Your task to perform on an android device: toggle pop-ups in chrome Image 0: 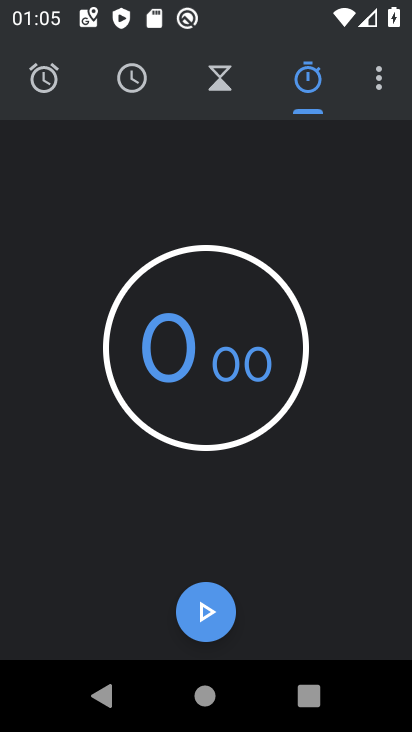
Step 0: press home button
Your task to perform on an android device: toggle pop-ups in chrome Image 1: 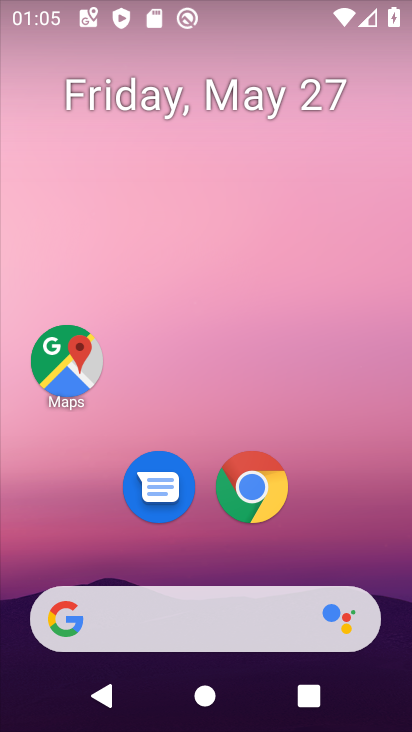
Step 1: click (242, 498)
Your task to perform on an android device: toggle pop-ups in chrome Image 2: 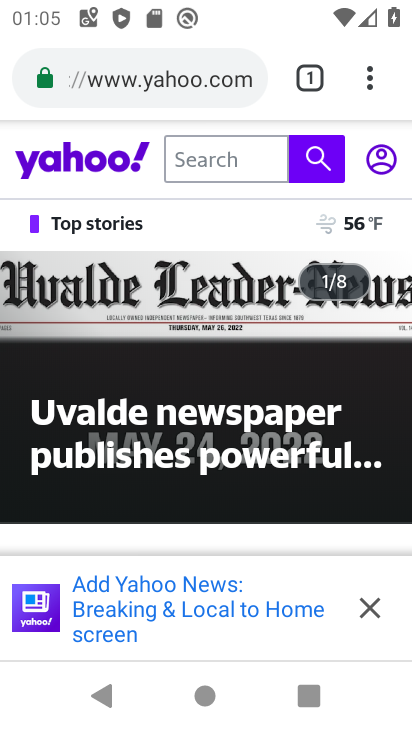
Step 2: click (375, 74)
Your task to perform on an android device: toggle pop-ups in chrome Image 3: 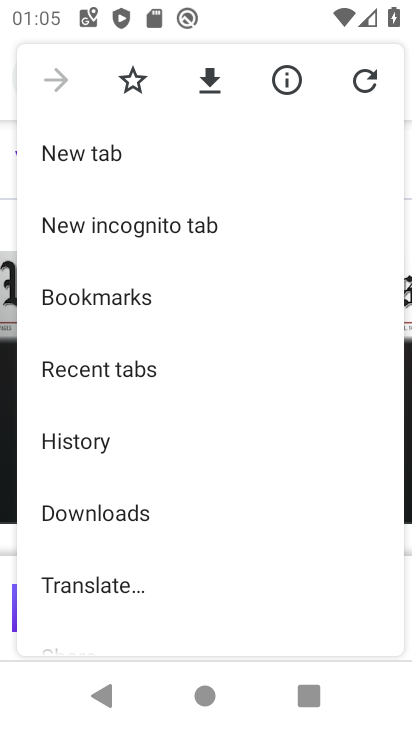
Step 3: drag from (201, 580) to (188, 189)
Your task to perform on an android device: toggle pop-ups in chrome Image 4: 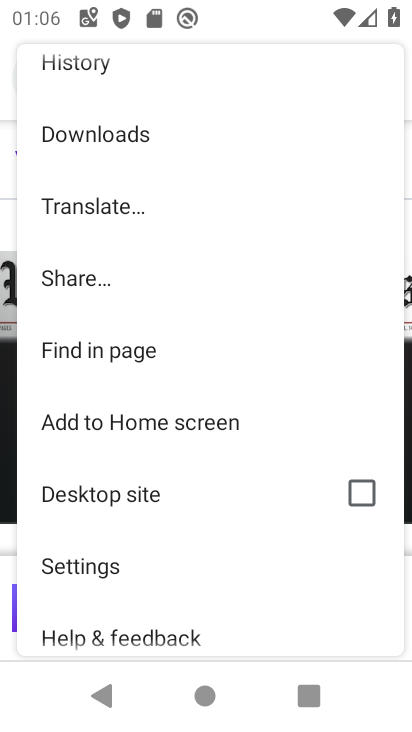
Step 4: click (92, 569)
Your task to perform on an android device: toggle pop-ups in chrome Image 5: 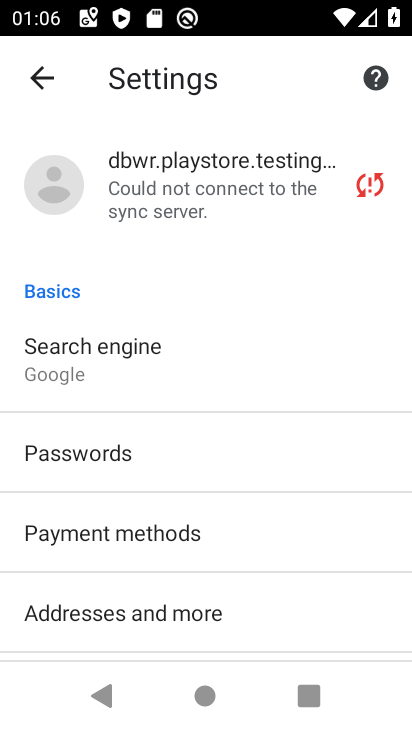
Step 5: drag from (226, 515) to (309, 144)
Your task to perform on an android device: toggle pop-ups in chrome Image 6: 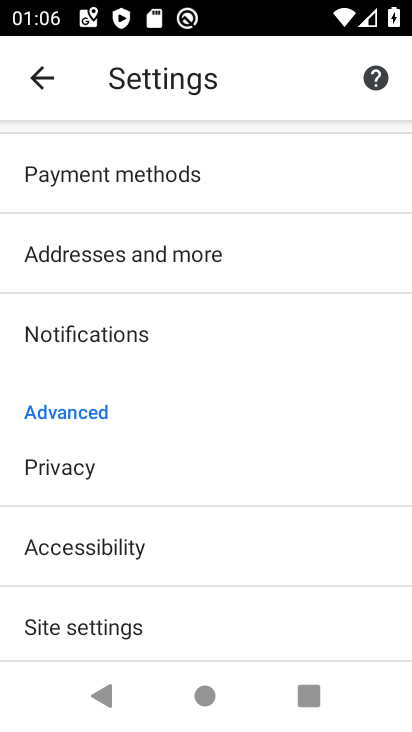
Step 6: click (121, 628)
Your task to perform on an android device: toggle pop-ups in chrome Image 7: 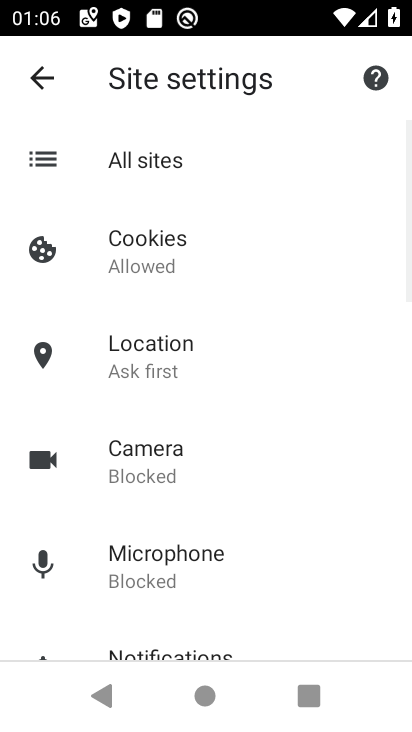
Step 7: drag from (289, 607) to (340, 183)
Your task to perform on an android device: toggle pop-ups in chrome Image 8: 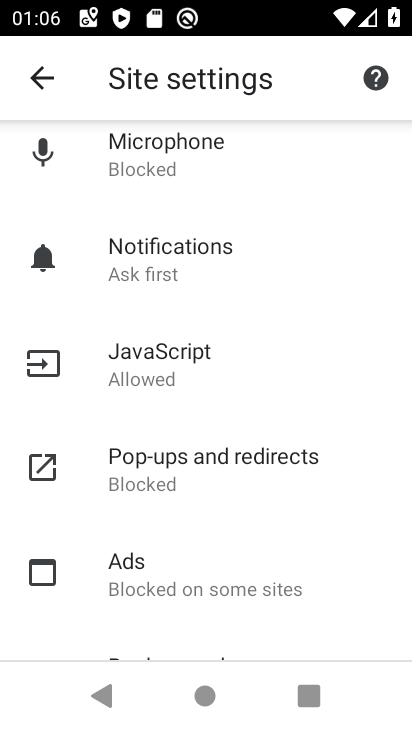
Step 8: click (169, 471)
Your task to perform on an android device: toggle pop-ups in chrome Image 9: 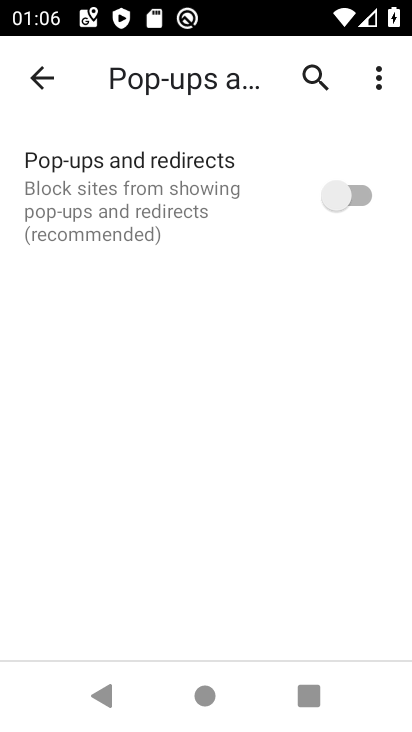
Step 9: click (368, 202)
Your task to perform on an android device: toggle pop-ups in chrome Image 10: 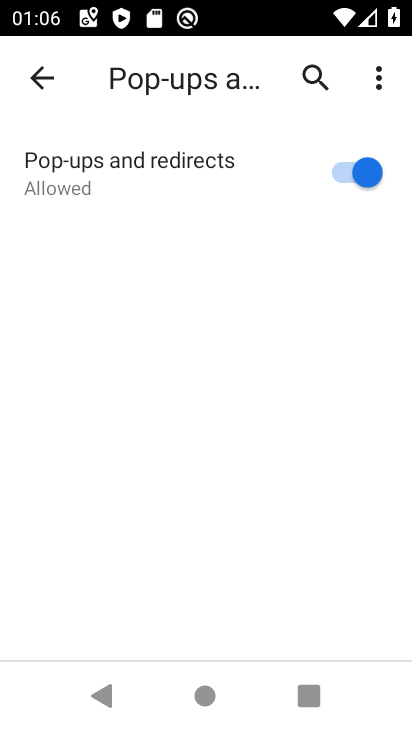
Step 10: task complete